Your task to perform on an android device: What's the weather today? Image 0: 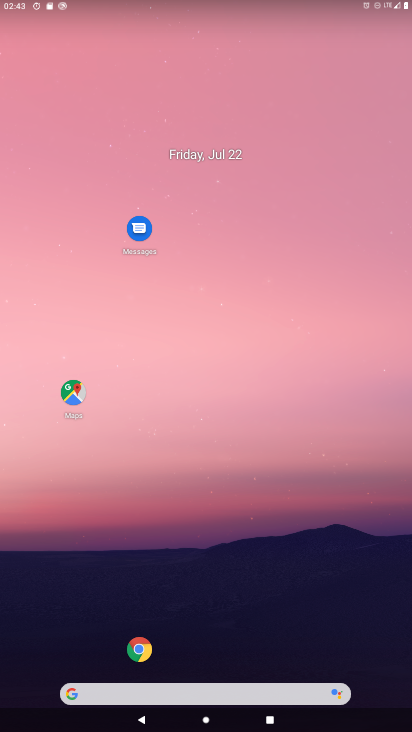
Step 0: click (104, 692)
Your task to perform on an android device: What's the weather today? Image 1: 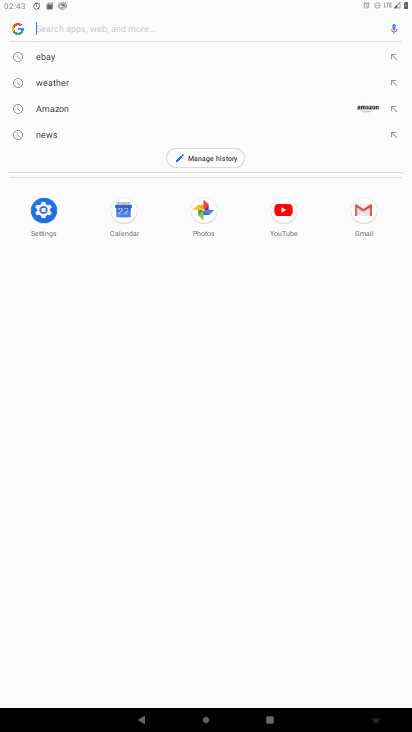
Step 1: type "What's the weather today?"
Your task to perform on an android device: What's the weather today? Image 2: 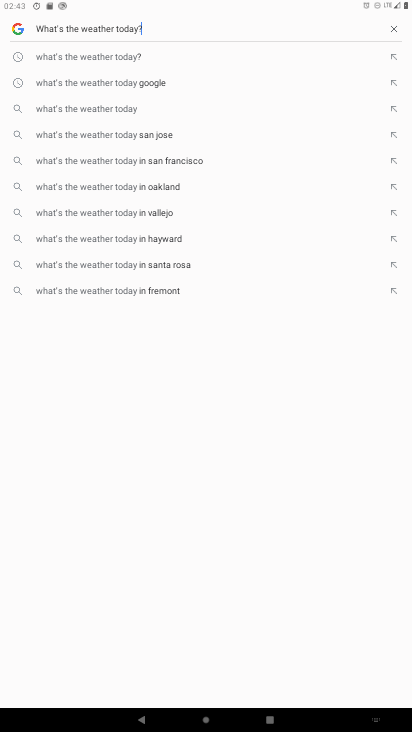
Step 2: type ""
Your task to perform on an android device: What's the weather today? Image 3: 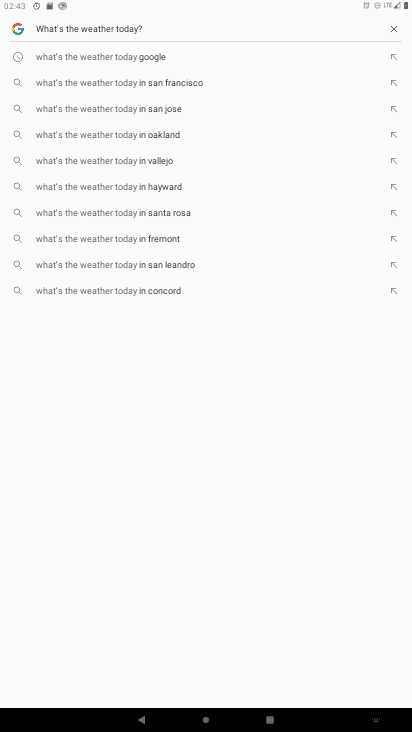
Step 3: type ""
Your task to perform on an android device: What's the weather today? Image 4: 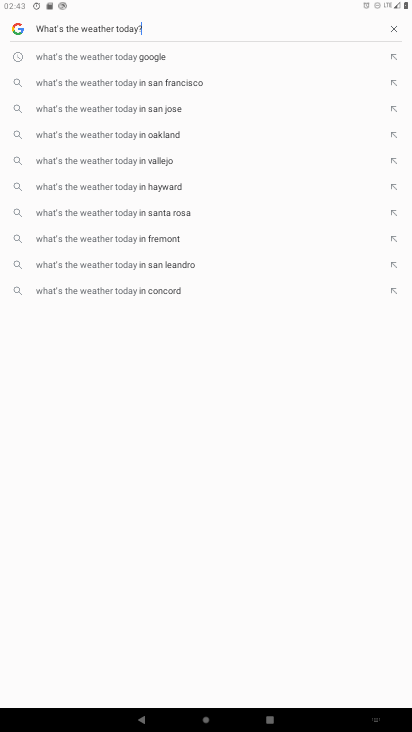
Step 4: type ""
Your task to perform on an android device: What's the weather today? Image 5: 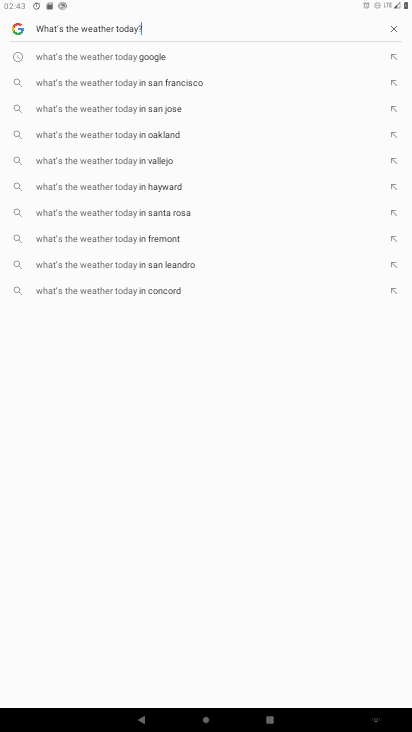
Step 5: task complete